Your task to perform on an android device: Search for Italian restaurants on Maps Image 0: 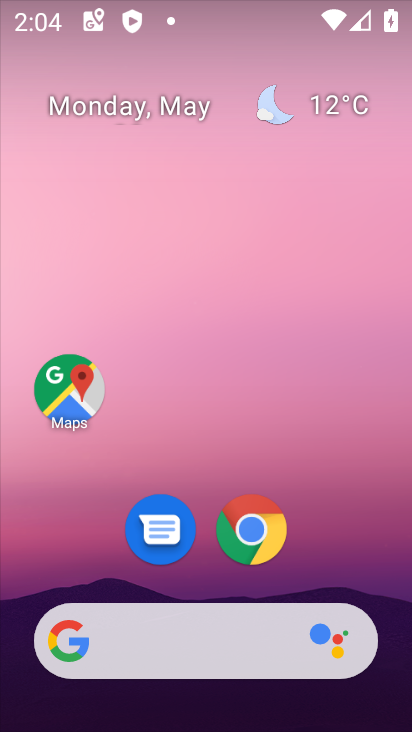
Step 0: click (69, 386)
Your task to perform on an android device: Search for Italian restaurants on Maps Image 1: 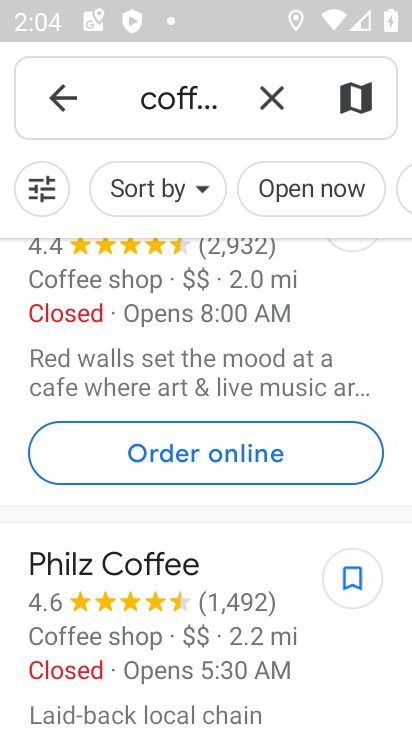
Step 1: click (273, 93)
Your task to perform on an android device: Search for Italian restaurants on Maps Image 2: 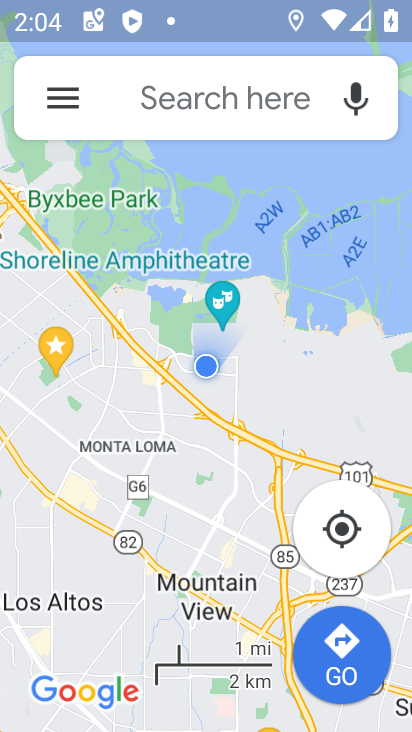
Step 2: click (168, 95)
Your task to perform on an android device: Search for Italian restaurants on Maps Image 3: 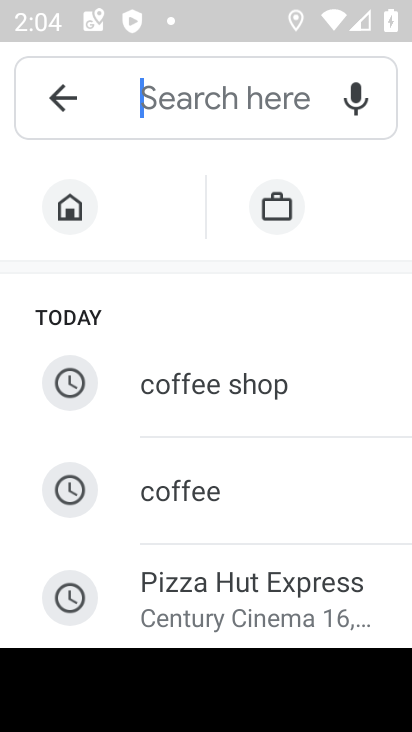
Step 3: type "italian restaurants"
Your task to perform on an android device: Search for Italian restaurants on Maps Image 4: 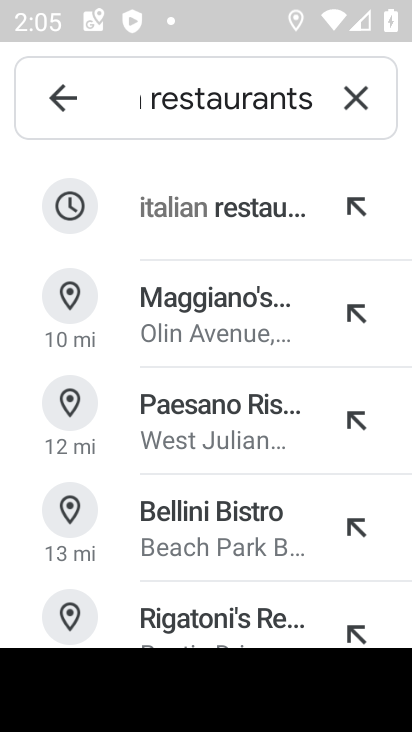
Step 4: click (165, 230)
Your task to perform on an android device: Search for Italian restaurants on Maps Image 5: 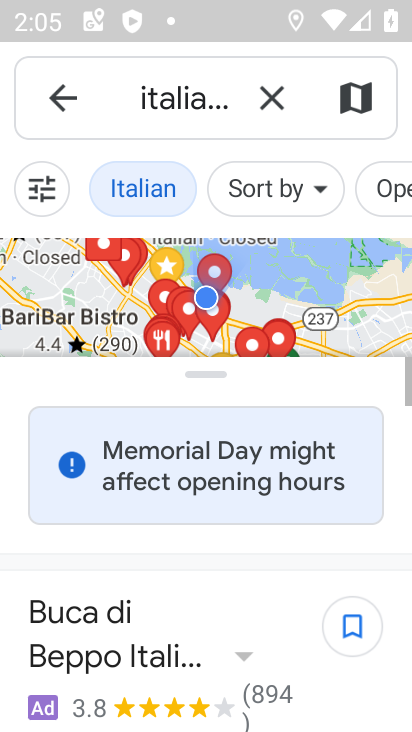
Step 5: task complete